Your task to perform on an android device: Go to Amazon Image 0: 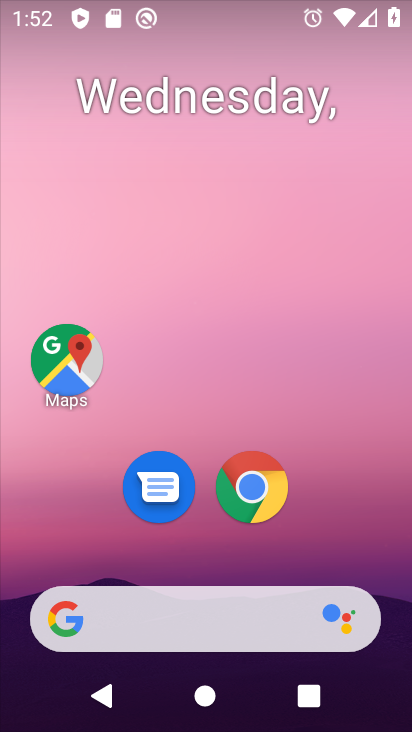
Step 0: drag from (394, 612) to (225, 30)
Your task to perform on an android device: Go to Amazon Image 1: 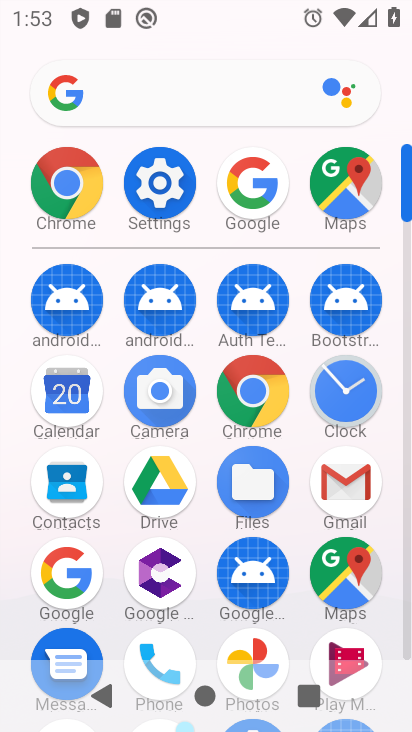
Step 1: click (77, 179)
Your task to perform on an android device: Go to Amazon Image 2: 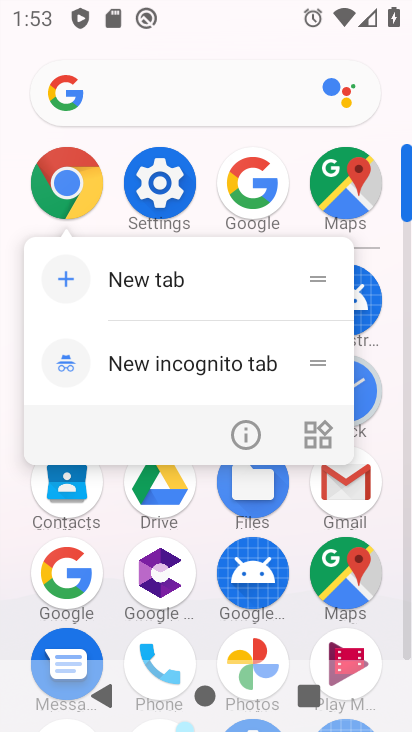
Step 2: click (77, 179)
Your task to perform on an android device: Go to Amazon Image 3: 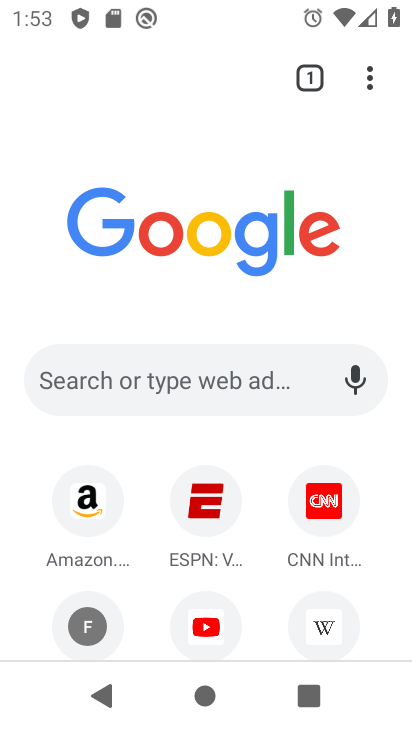
Step 3: click (90, 511)
Your task to perform on an android device: Go to Amazon Image 4: 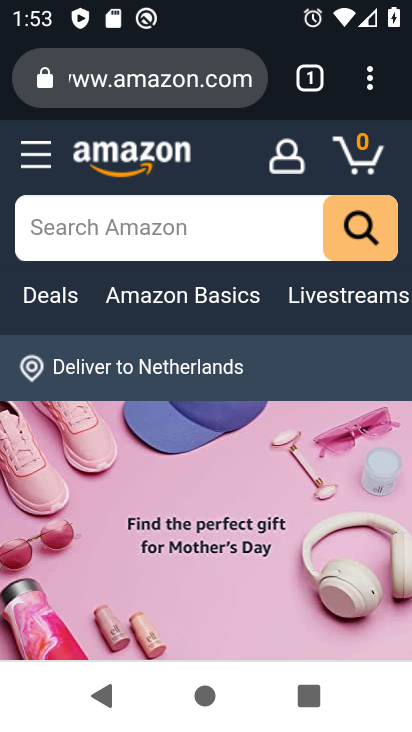
Step 4: task complete